Your task to perform on an android device: Go to Google maps Image 0: 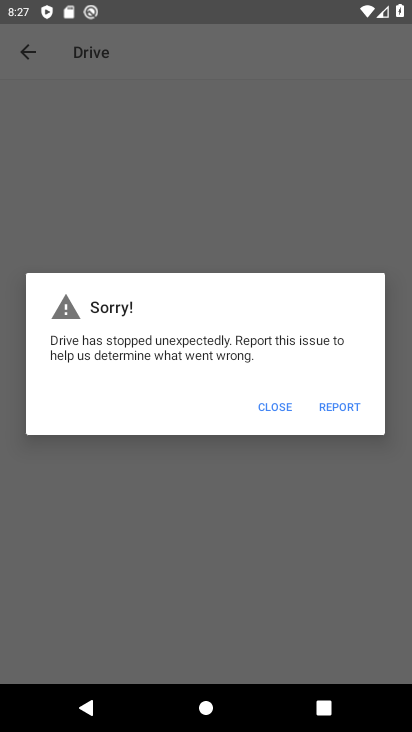
Step 0: press home button
Your task to perform on an android device: Go to Google maps Image 1: 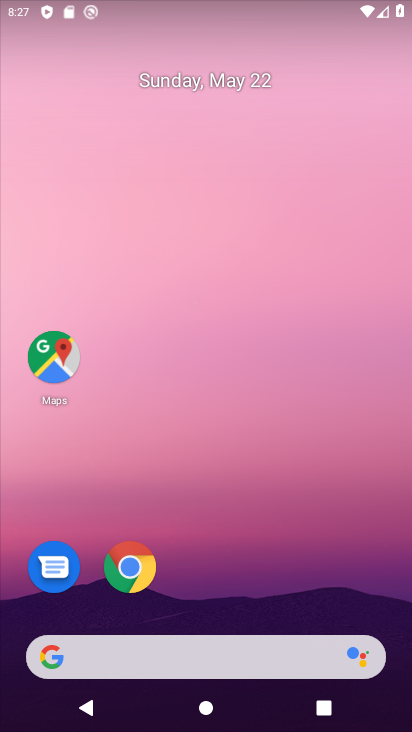
Step 1: click (62, 363)
Your task to perform on an android device: Go to Google maps Image 2: 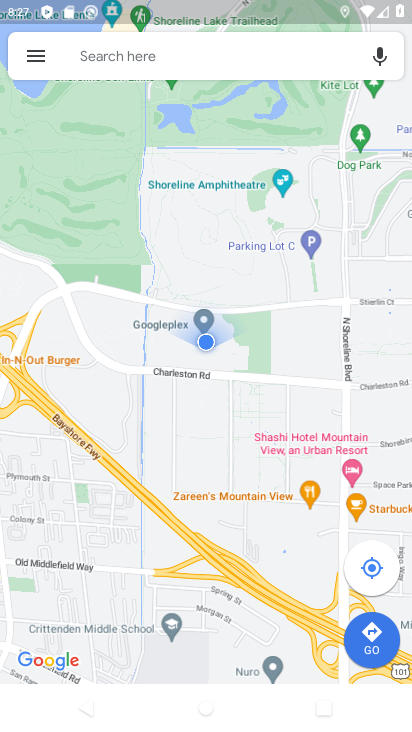
Step 2: task complete